Your task to perform on an android device: turn off airplane mode Image 0: 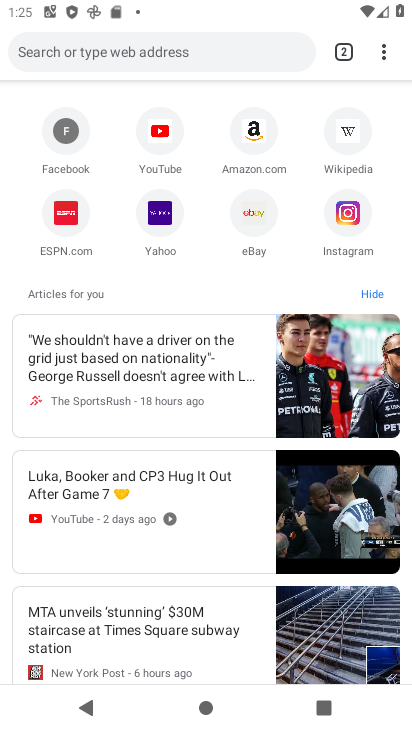
Step 0: press home button
Your task to perform on an android device: turn off airplane mode Image 1: 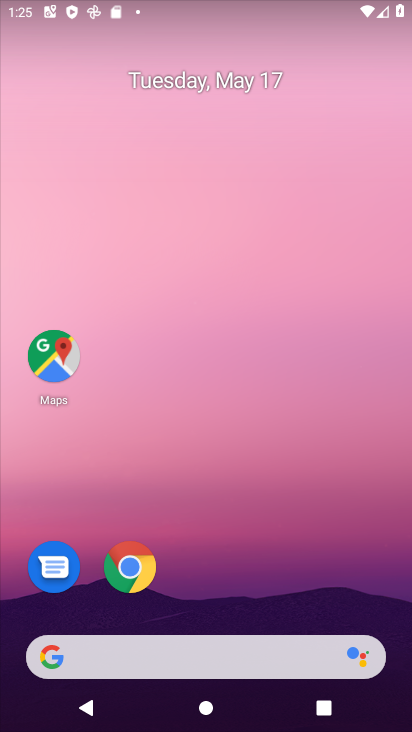
Step 1: drag from (372, 605) to (287, 105)
Your task to perform on an android device: turn off airplane mode Image 2: 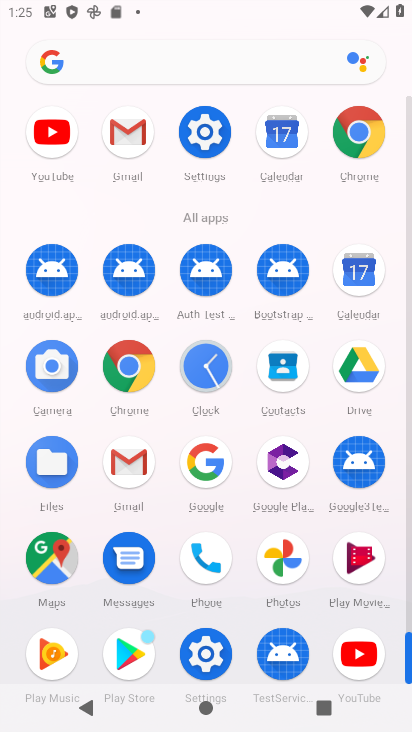
Step 2: click (210, 656)
Your task to perform on an android device: turn off airplane mode Image 3: 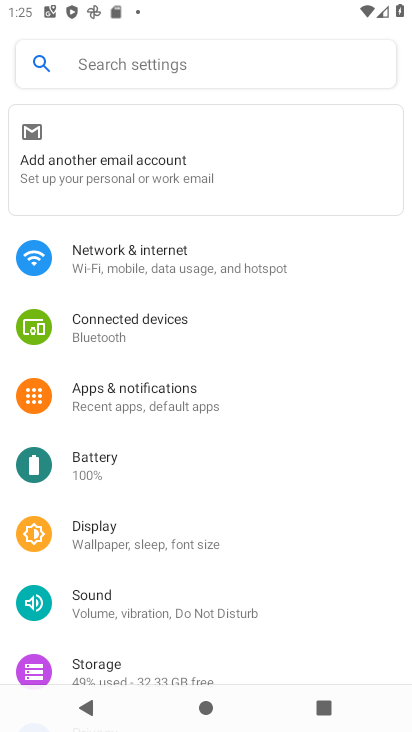
Step 3: click (134, 262)
Your task to perform on an android device: turn off airplane mode Image 4: 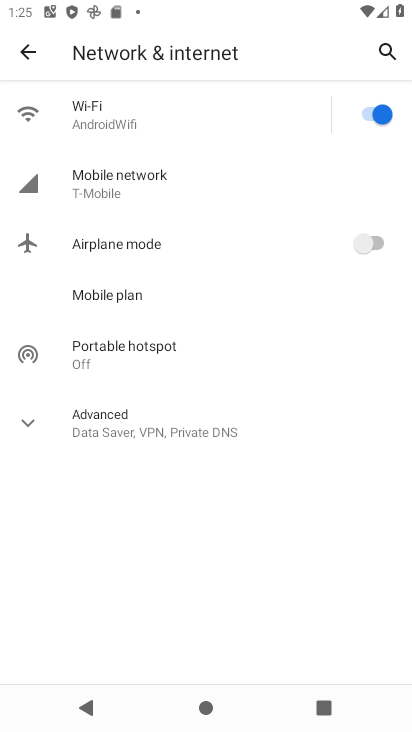
Step 4: task complete